Your task to perform on an android device: Open ESPN.com Image 0: 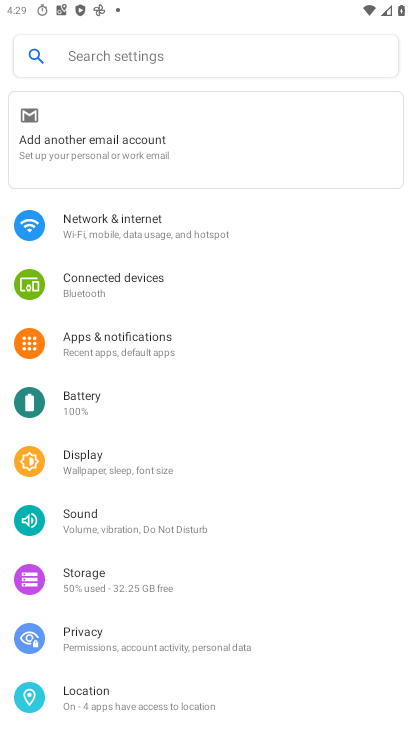
Step 0: press home button
Your task to perform on an android device: Open ESPN.com Image 1: 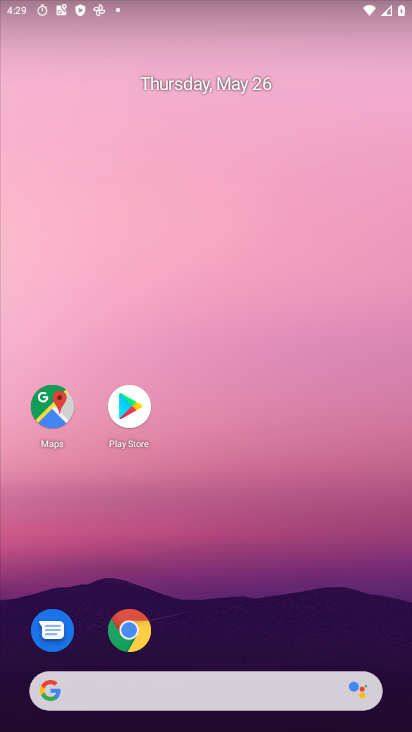
Step 1: click (132, 638)
Your task to perform on an android device: Open ESPN.com Image 2: 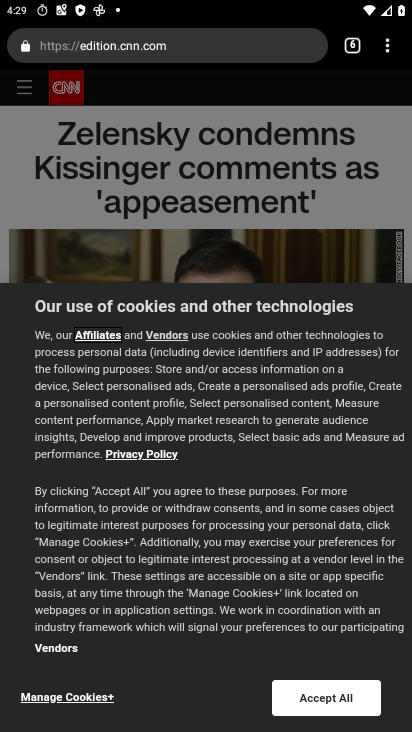
Step 2: click (354, 48)
Your task to perform on an android device: Open ESPN.com Image 3: 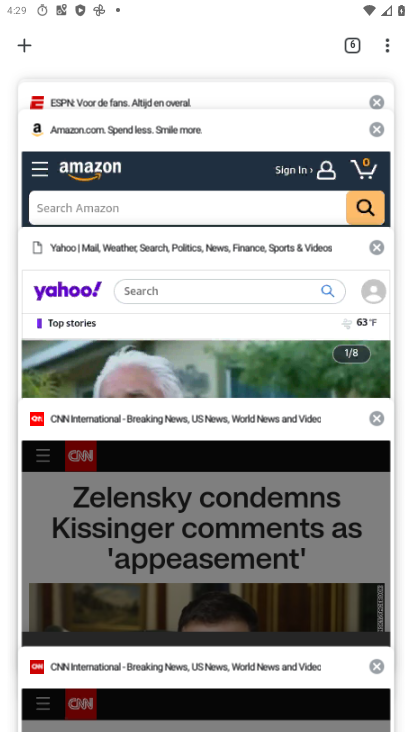
Step 3: drag from (164, 121) to (164, 348)
Your task to perform on an android device: Open ESPN.com Image 4: 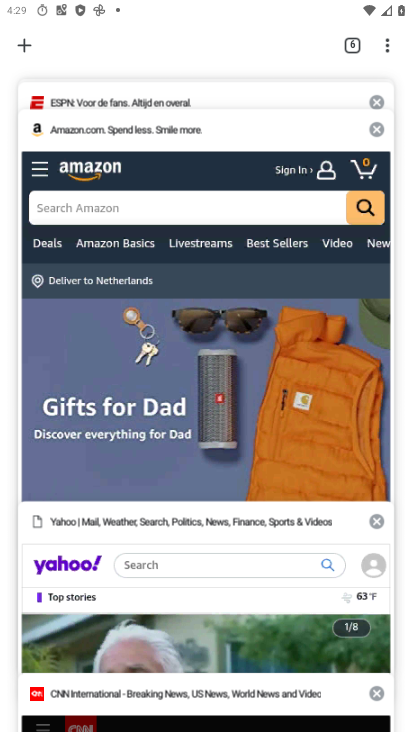
Step 4: drag from (184, 176) to (194, 367)
Your task to perform on an android device: Open ESPN.com Image 5: 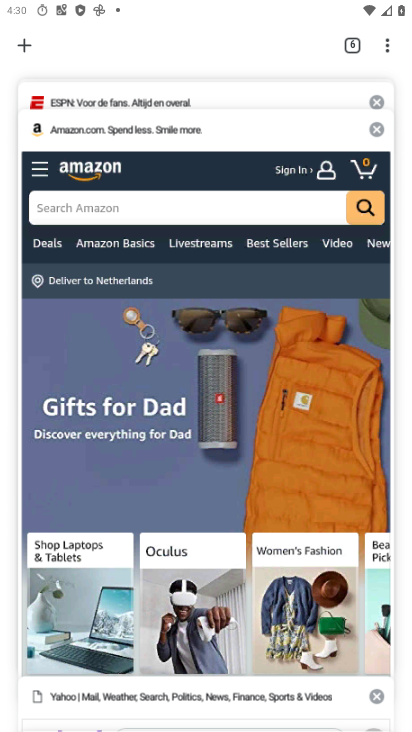
Step 5: drag from (204, 125) to (216, 328)
Your task to perform on an android device: Open ESPN.com Image 6: 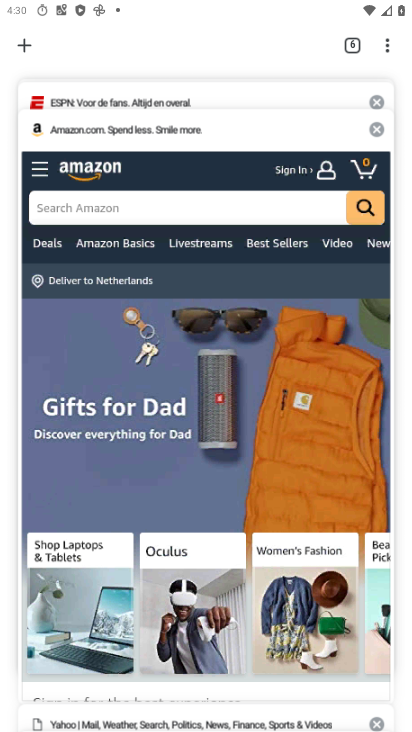
Step 6: click (205, 89)
Your task to perform on an android device: Open ESPN.com Image 7: 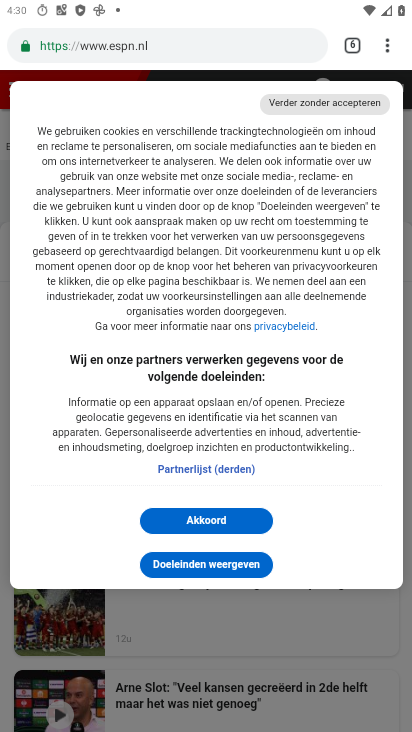
Step 7: task complete